Your task to perform on an android device: open app "Google Docs" Image 0: 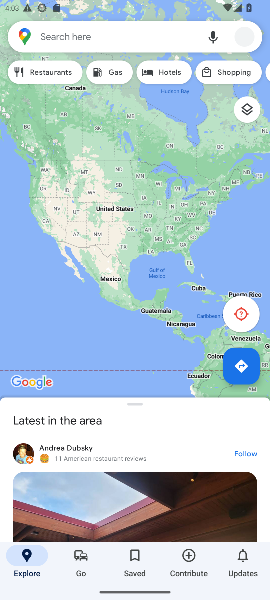
Step 0: press home button
Your task to perform on an android device: open app "Google Docs" Image 1: 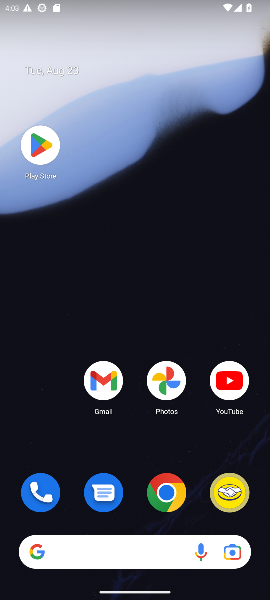
Step 1: click (50, 170)
Your task to perform on an android device: open app "Google Docs" Image 2: 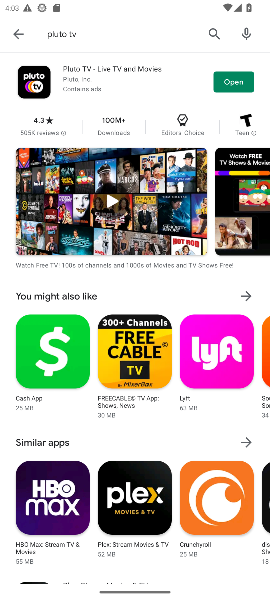
Step 2: click (210, 38)
Your task to perform on an android device: open app "Google Docs" Image 3: 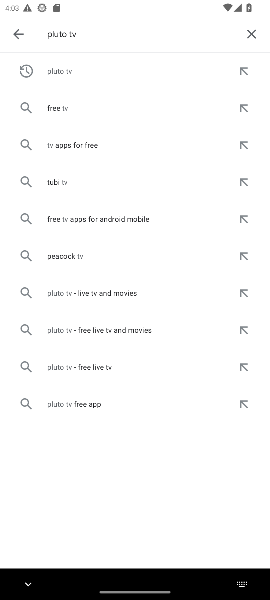
Step 3: click (259, 31)
Your task to perform on an android device: open app "Google Docs" Image 4: 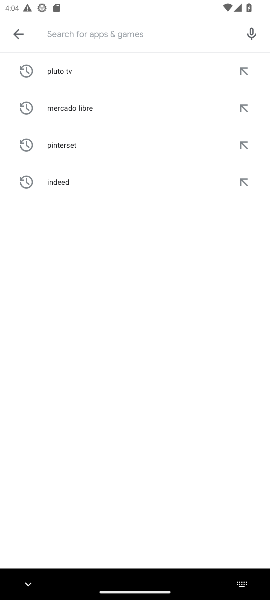
Step 4: type "google doc"
Your task to perform on an android device: open app "Google Docs" Image 5: 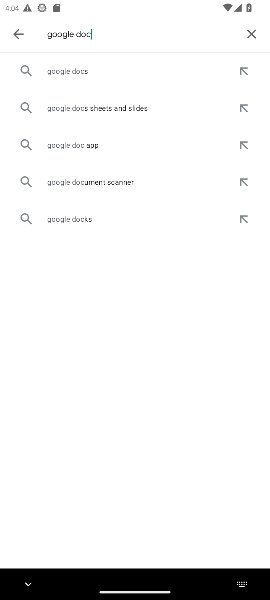
Step 5: click (70, 84)
Your task to perform on an android device: open app "Google Docs" Image 6: 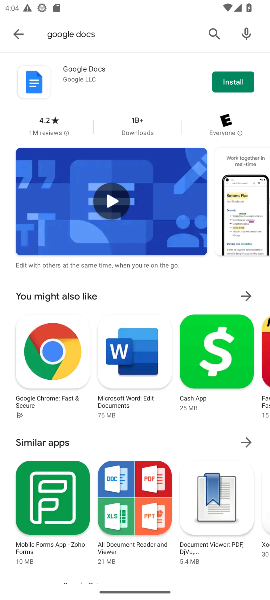
Step 6: click (242, 81)
Your task to perform on an android device: open app "Google Docs" Image 7: 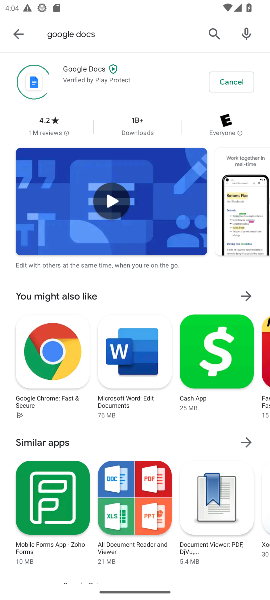
Step 7: task complete